Your task to perform on an android device: When is my next meeting? Image 0: 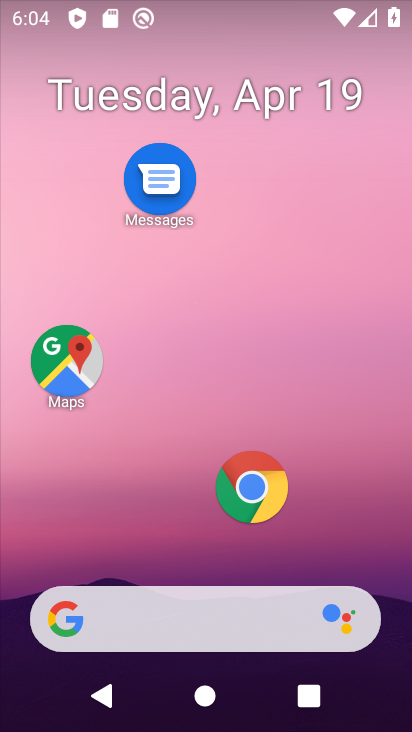
Step 0: drag from (195, 545) to (195, 97)
Your task to perform on an android device: When is my next meeting? Image 1: 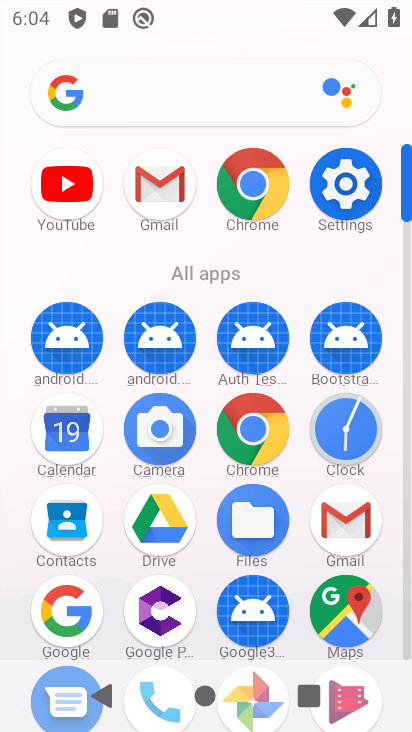
Step 1: click (65, 429)
Your task to perform on an android device: When is my next meeting? Image 2: 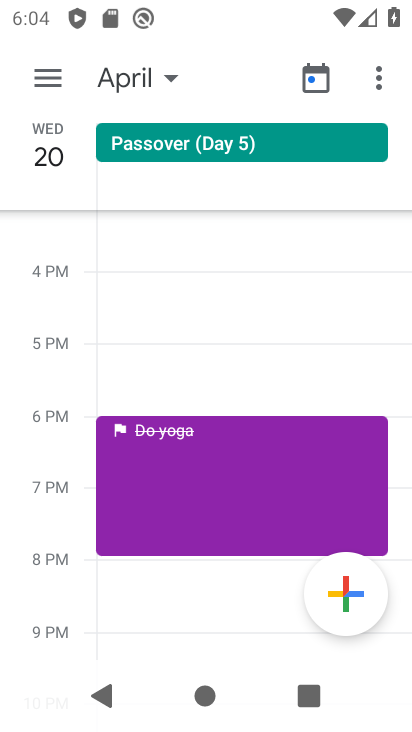
Step 2: drag from (66, 533) to (101, 74)
Your task to perform on an android device: When is my next meeting? Image 3: 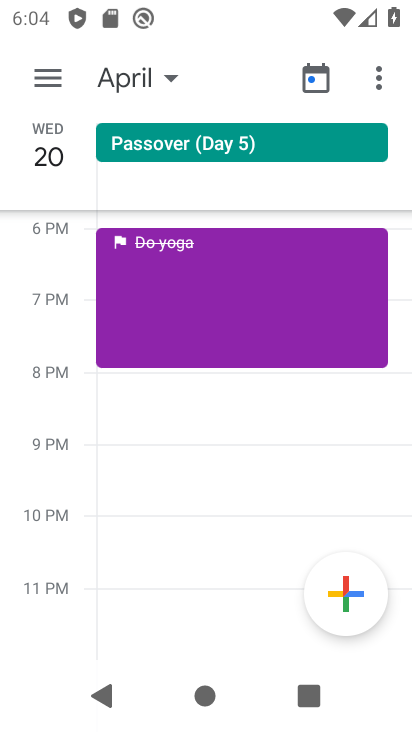
Step 3: click (78, 169)
Your task to perform on an android device: When is my next meeting? Image 4: 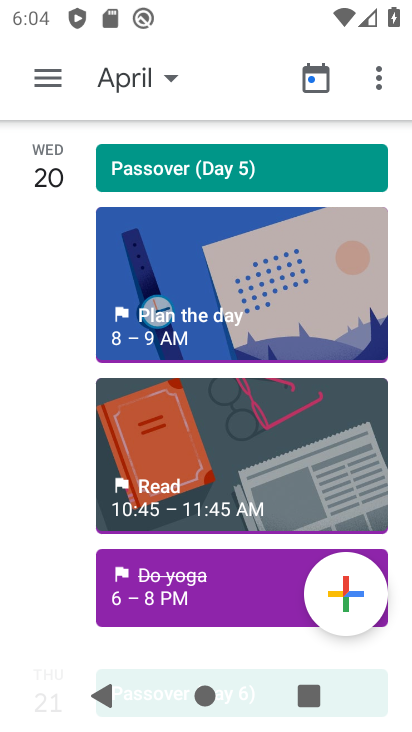
Step 4: task complete